Your task to perform on an android device: empty trash in google photos Image 0: 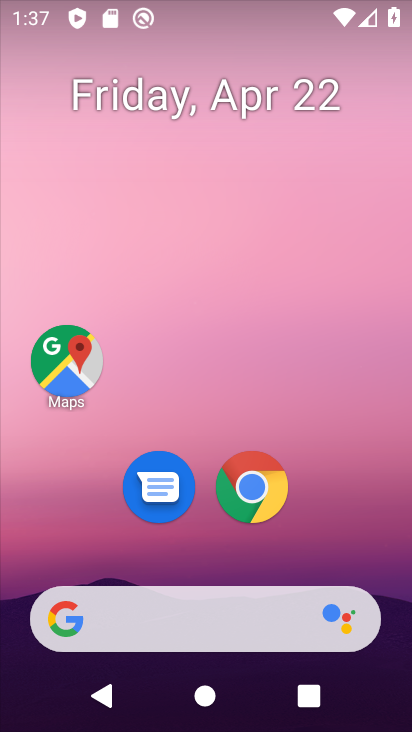
Step 0: drag from (277, 530) to (299, 101)
Your task to perform on an android device: empty trash in google photos Image 1: 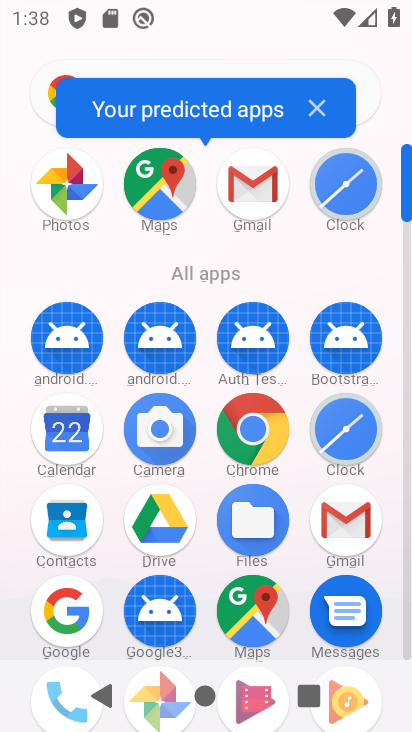
Step 1: click (341, 528)
Your task to perform on an android device: empty trash in google photos Image 2: 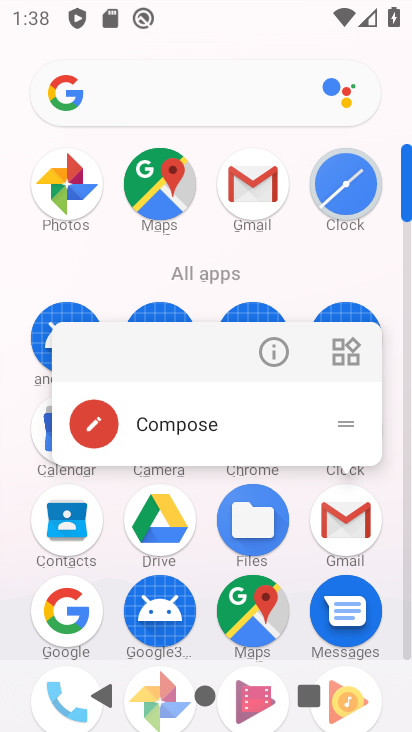
Step 2: click (328, 521)
Your task to perform on an android device: empty trash in google photos Image 3: 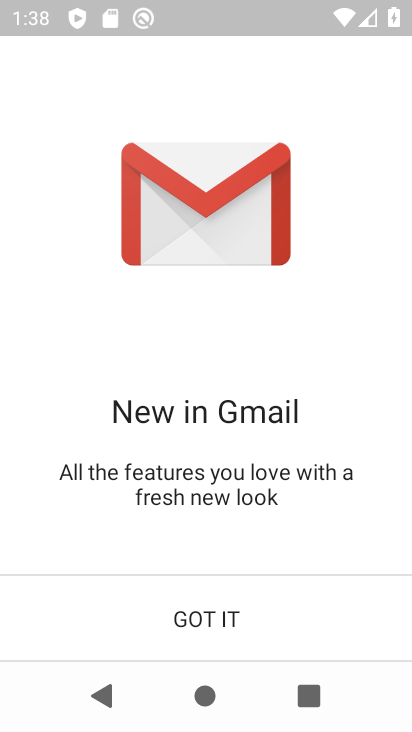
Step 3: click (219, 614)
Your task to perform on an android device: empty trash in google photos Image 4: 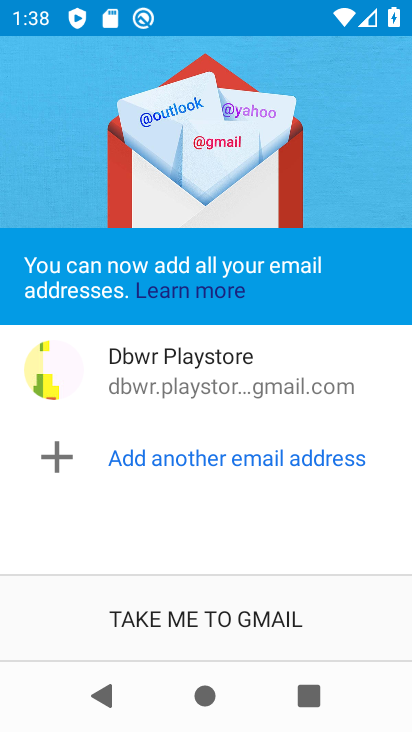
Step 4: click (208, 623)
Your task to perform on an android device: empty trash in google photos Image 5: 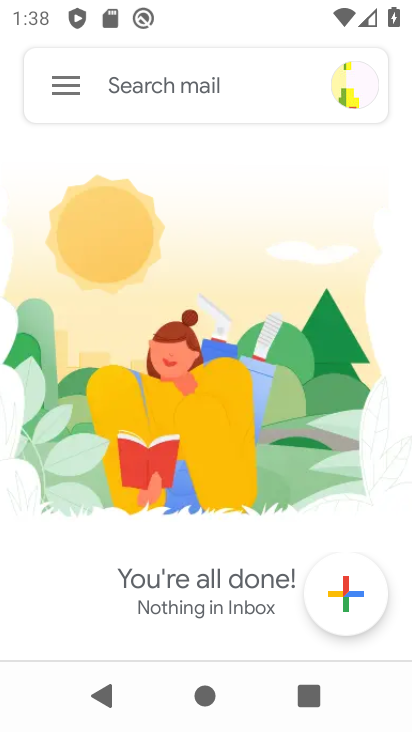
Step 5: click (72, 89)
Your task to perform on an android device: empty trash in google photos Image 6: 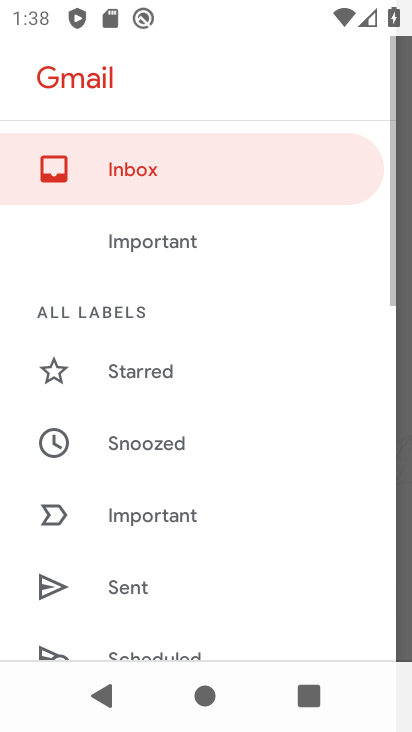
Step 6: drag from (122, 576) to (229, 167)
Your task to perform on an android device: empty trash in google photos Image 7: 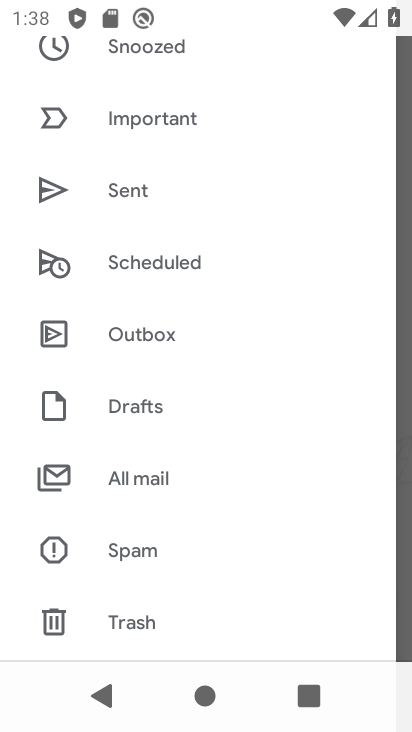
Step 7: click (142, 615)
Your task to perform on an android device: empty trash in google photos Image 8: 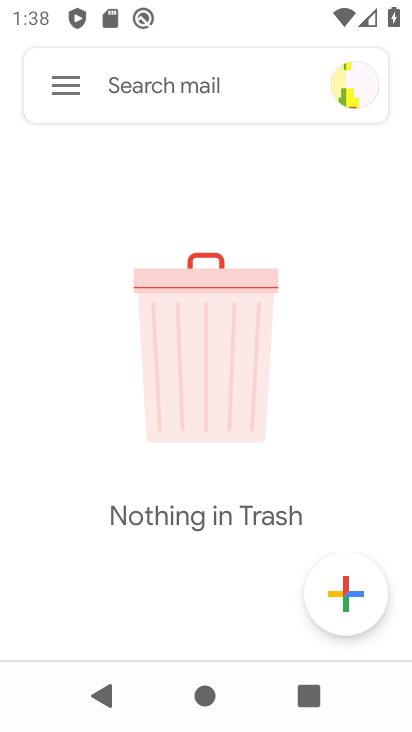
Step 8: task complete